Your task to perform on an android device: turn off translation in the chrome app Image 0: 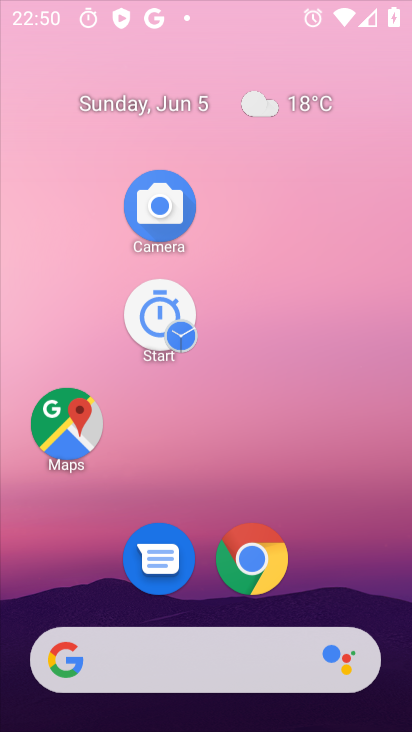
Step 0: click (93, 142)
Your task to perform on an android device: turn off translation in the chrome app Image 1: 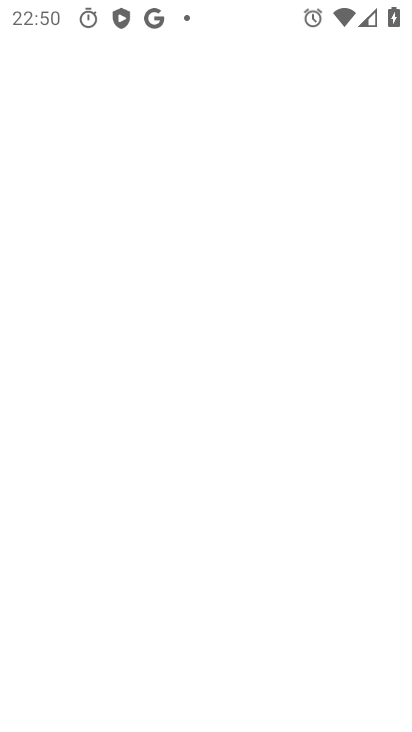
Step 1: drag from (263, 672) to (154, 161)
Your task to perform on an android device: turn off translation in the chrome app Image 2: 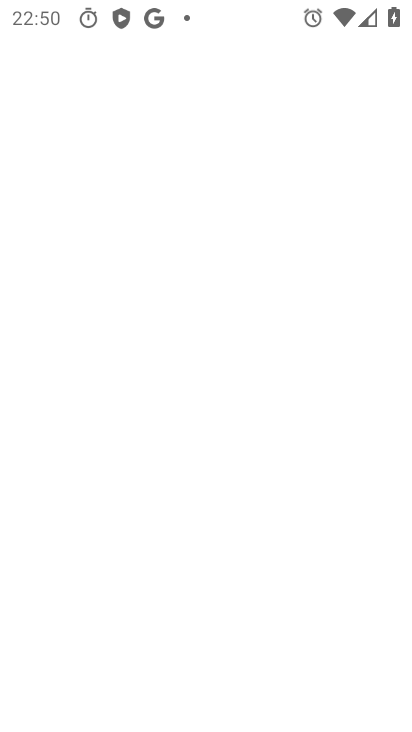
Step 2: press back button
Your task to perform on an android device: turn off translation in the chrome app Image 3: 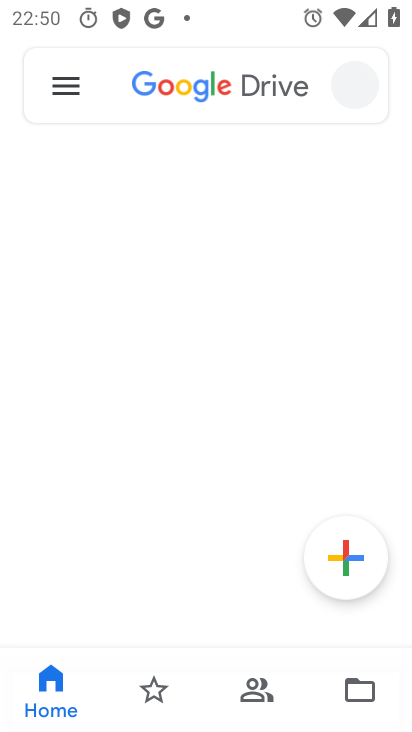
Step 3: press home button
Your task to perform on an android device: turn off translation in the chrome app Image 4: 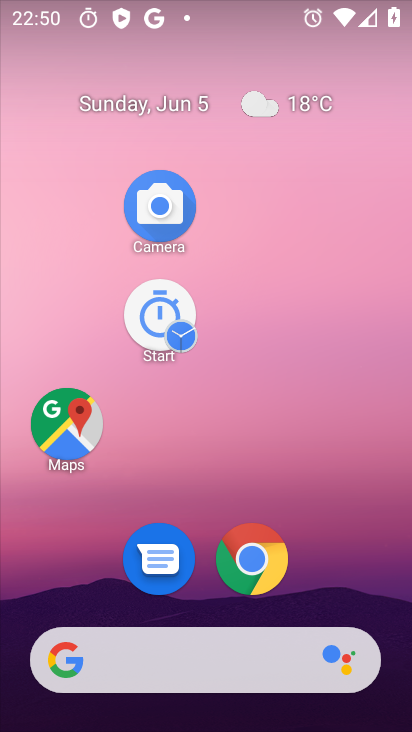
Step 4: drag from (263, 662) to (263, 124)
Your task to perform on an android device: turn off translation in the chrome app Image 5: 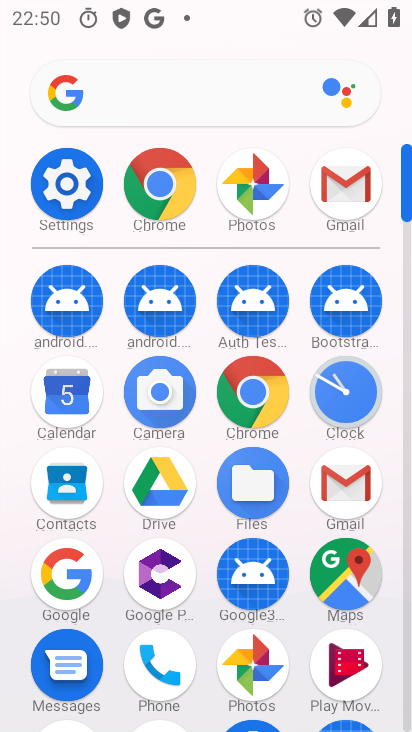
Step 5: click (153, 184)
Your task to perform on an android device: turn off translation in the chrome app Image 6: 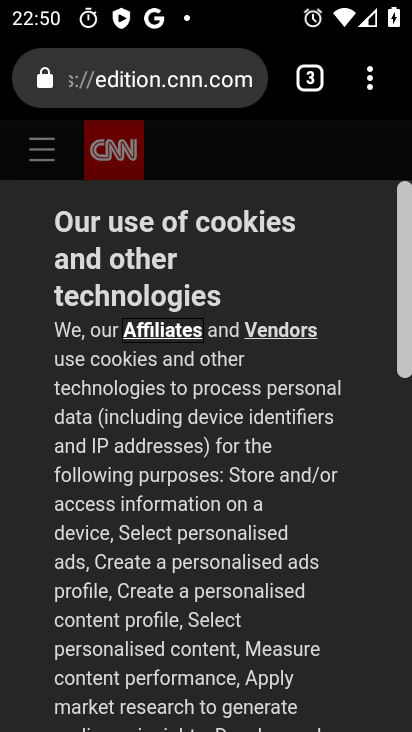
Step 6: click (366, 81)
Your task to perform on an android device: turn off translation in the chrome app Image 7: 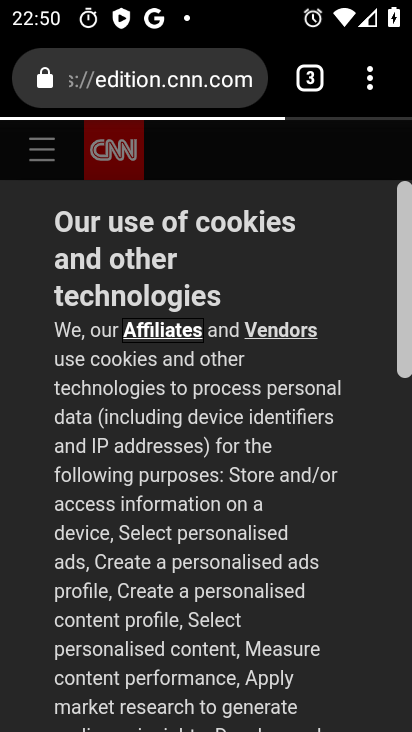
Step 7: drag from (366, 75) to (77, 621)
Your task to perform on an android device: turn off translation in the chrome app Image 8: 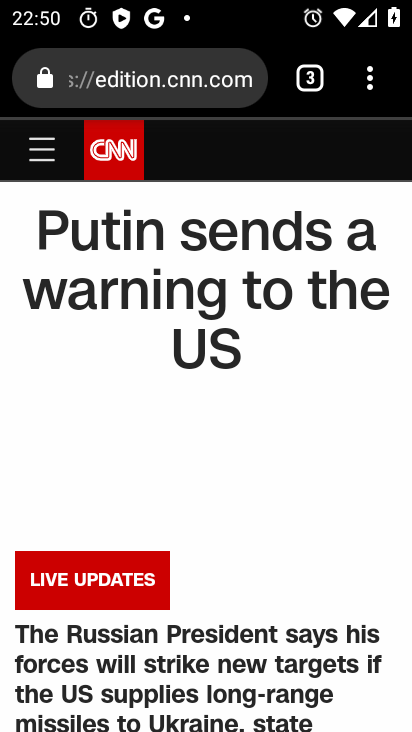
Step 8: click (77, 622)
Your task to perform on an android device: turn off translation in the chrome app Image 9: 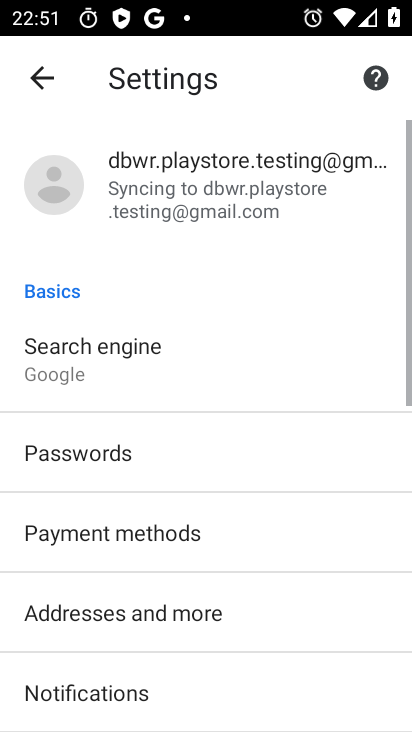
Step 9: drag from (92, 589) to (87, 241)
Your task to perform on an android device: turn off translation in the chrome app Image 10: 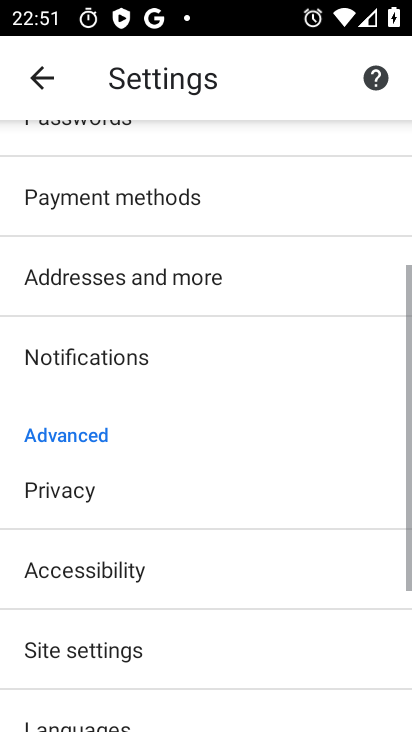
Step 10: drag from (136, 655) to (153, 294)
Your task to perform on an android device: turn off translation in the chrome app Image 11: 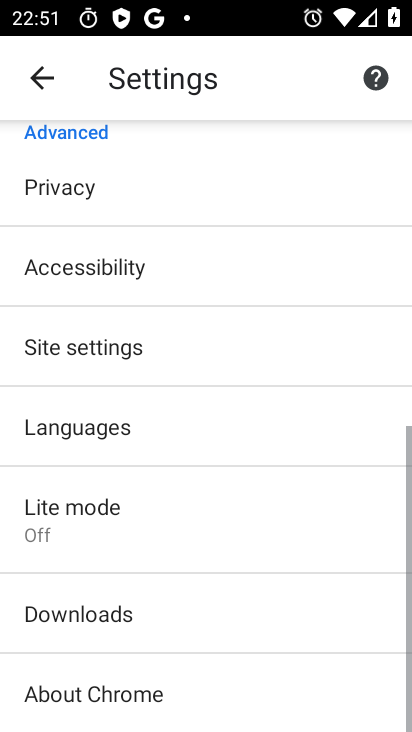
Step 11: drag from (177, 438) to (224, 200)
Your task to perform on an android device: turn off translation in the chrome app Image 12: 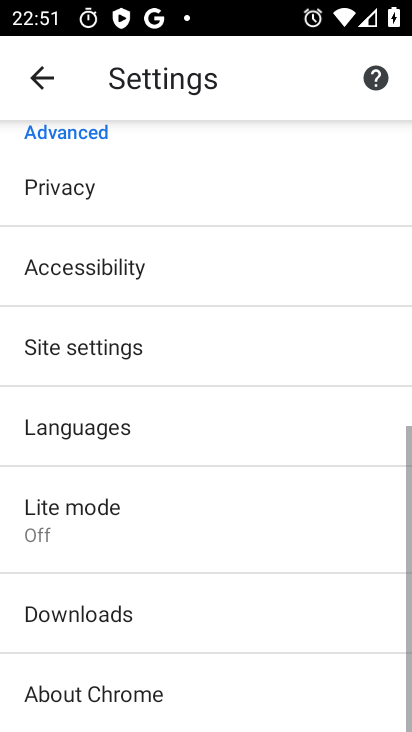
Step 12: click (76, 420)
Your task to perform on an android device: turn off translation in the chrome app Image 13: 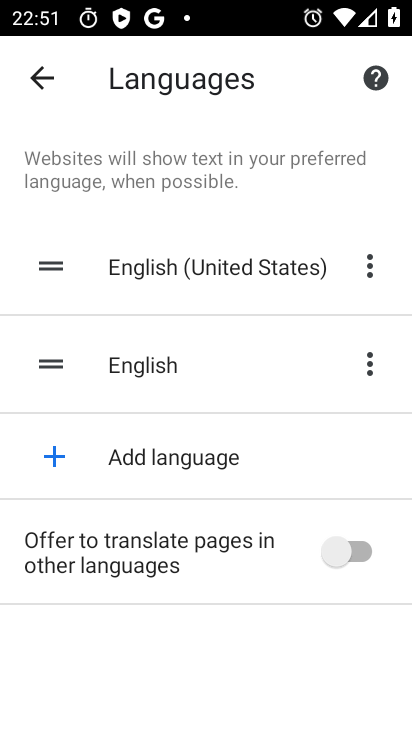
Step 13: task complete